Your task to perform on an android device: Open the phone app and click the voicemail tab. Image 0: 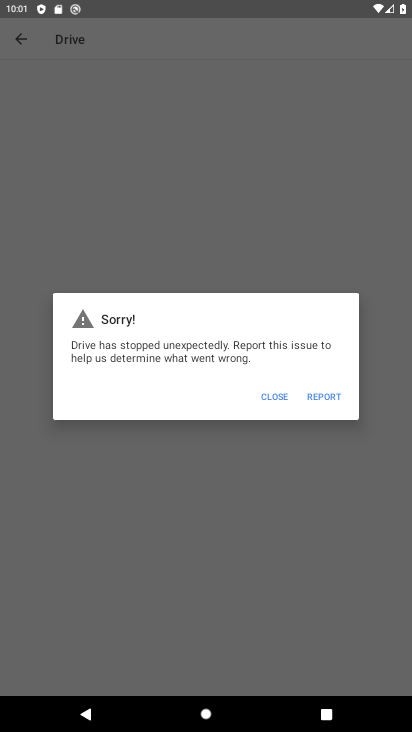
Step 0: press home button
Your task to perform on an android device: Open the phone app and click the voicemail tab. Image 1: 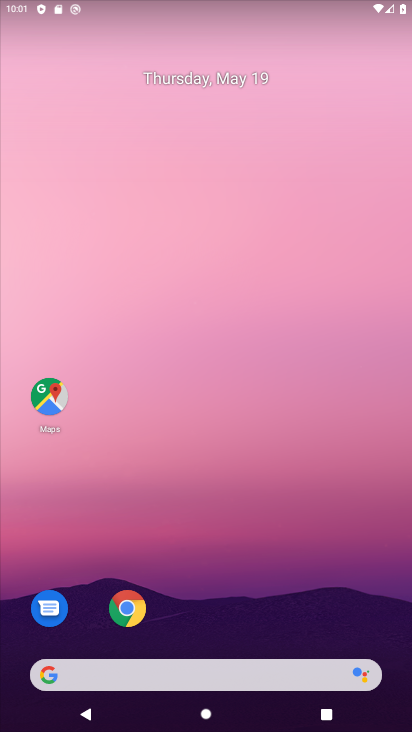
Step 1: drag from (393, 619) to (407, 188)
Your task to perform on an android device: Open the phone app and click the voicemail tab. Image 2: 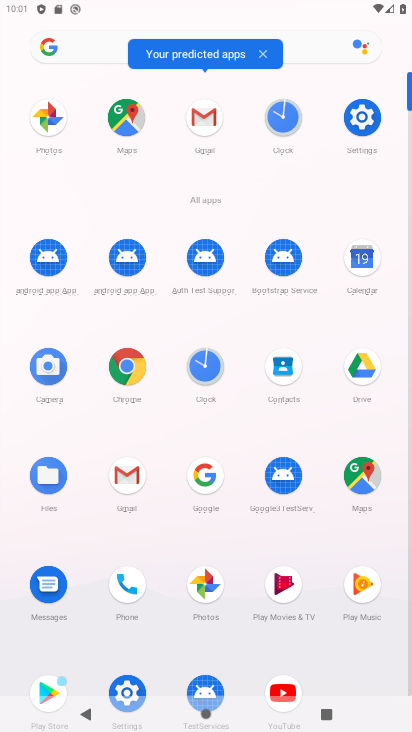
Step 2: click (133, 584)
Your task to perform on an android device: Open the phone app and click the voicemail tab. Image 3: 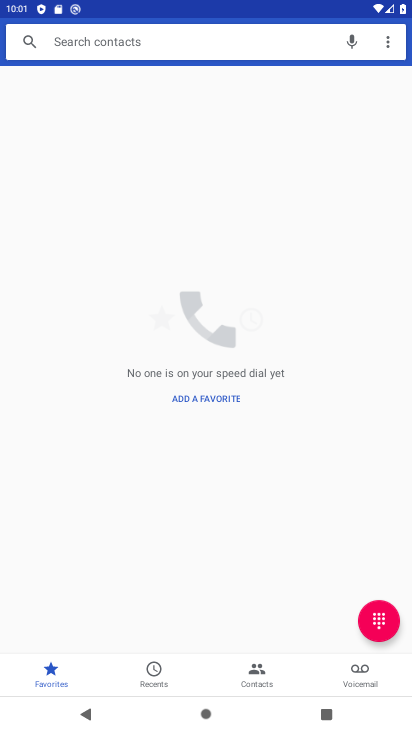
Step 3: click (354, 673)
Your task to perform on an android device: Open the phone app and click the voicemail tab. Image 4: 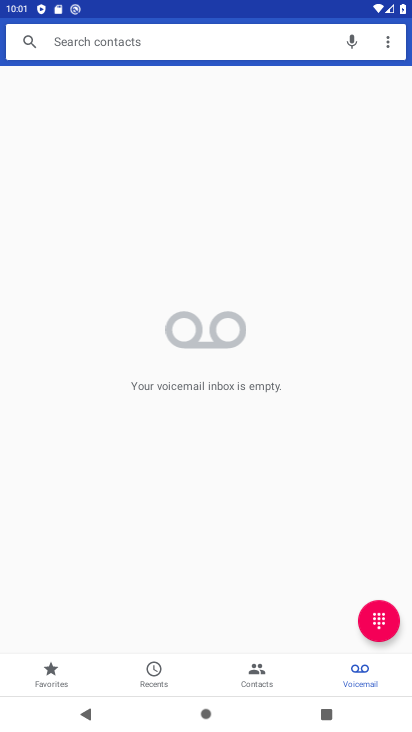
Step 4: task complete